Your task to perform on an android device: Check the weather Image 0: 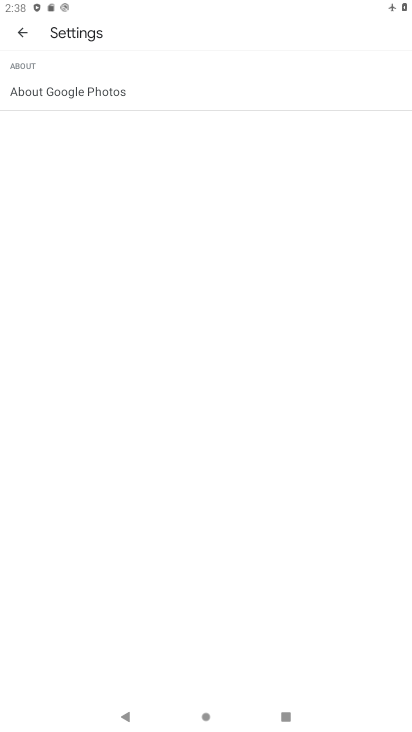
Step 0: press home button
Your task to perform on an android device: Check the weather Image 1: 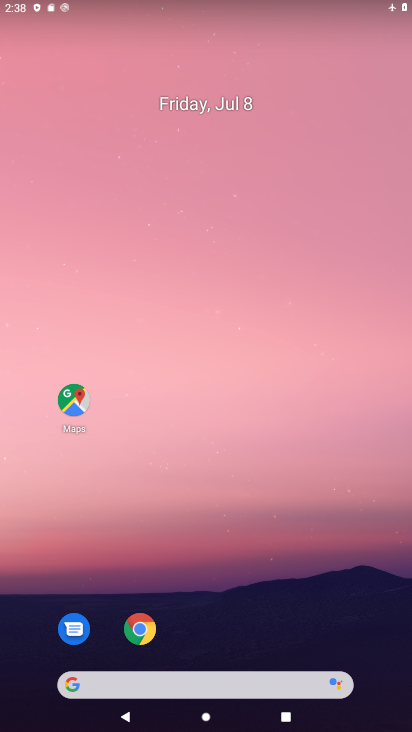
Step 1: drag from (31, 704) to (212, 232)
Your task to perform on an android device: Check the weather Image 2: 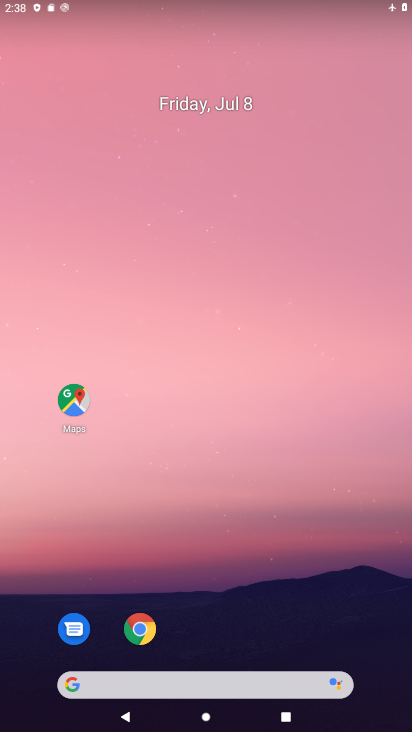
Step 2: click (105, 680)
Your task to perform on an android device: Check the weather Image 3: 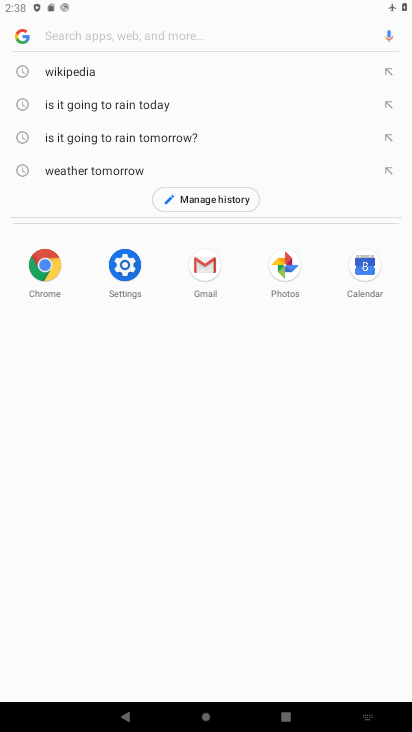
Step 3: type "Check the weather"
Your task to perform on an android device: Check the weather Image 4: 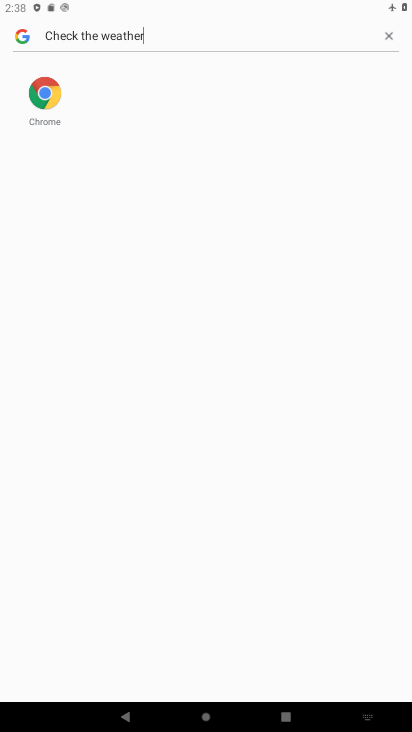
Step 4: type ""
Your task to perform on an android device: Check the weather Image 5: 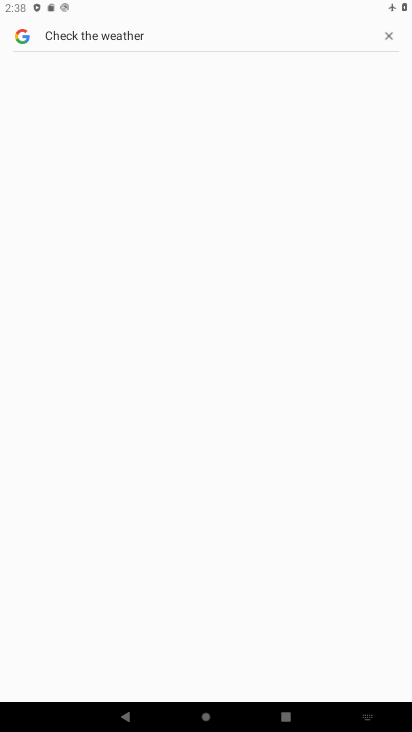
Step 5: type ""
Your task to perform on an android device: Check the weather Image 6: 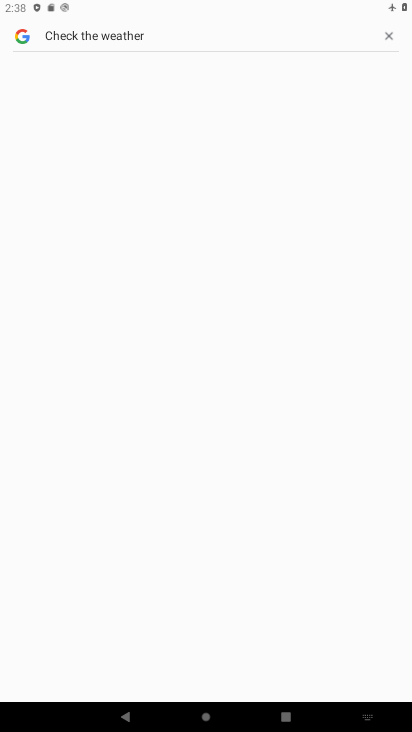
Step 6: type ""
Your task to perform on an android device: Check the weather Image 7: 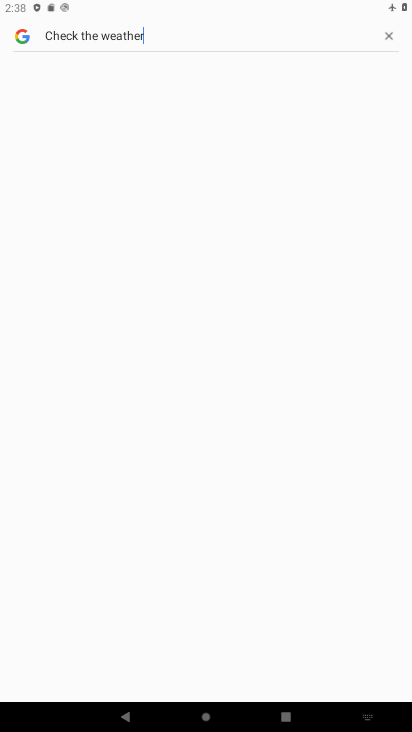
Step 7: type ""
Your task to perform on an android device: Check the weather Image 8: 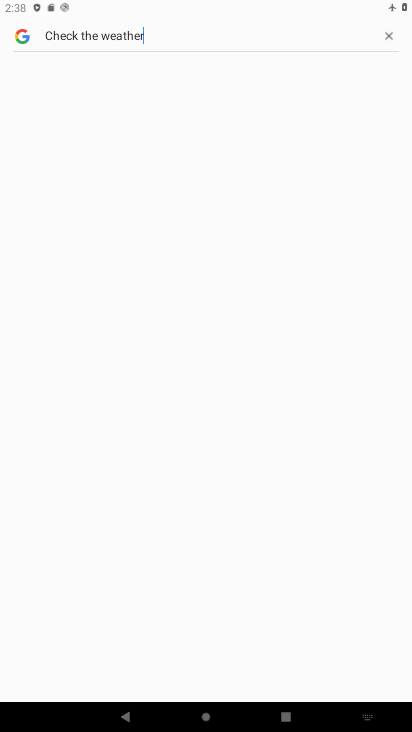
Step 8: task complete